Your task to perform on an android device: Check the news Image 0: 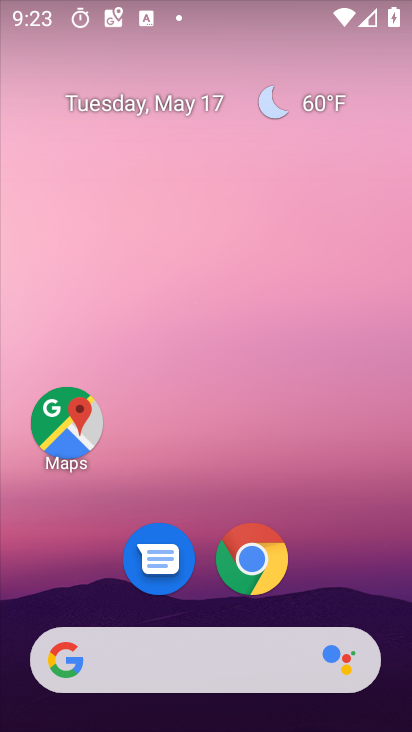
Step 0: drag from (293, 568) to (332, 2)
Your task to perform on an android device: Check the news Image 1: 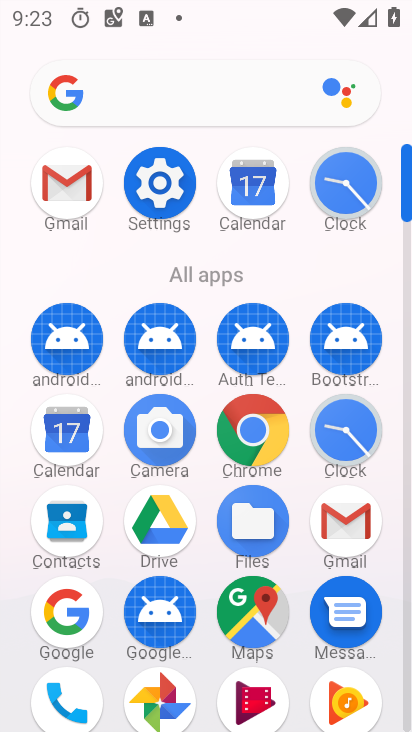
Step 1: click (65, 603)
Your task to perform on an android device: Check the news Image 2: 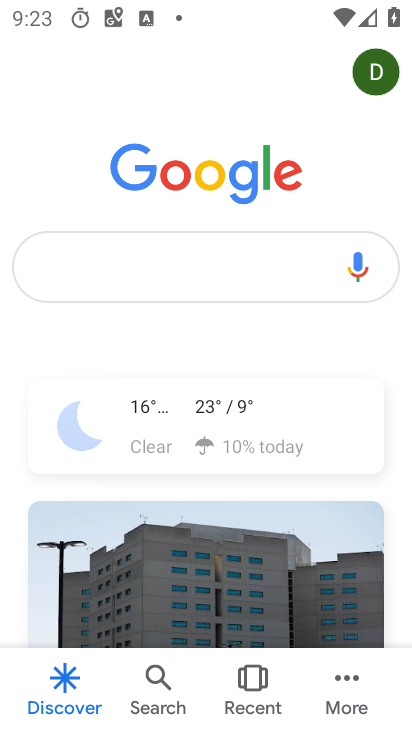
Step 2: click (173, 274)
Your task to perform on an android device: Check the news Image 3: 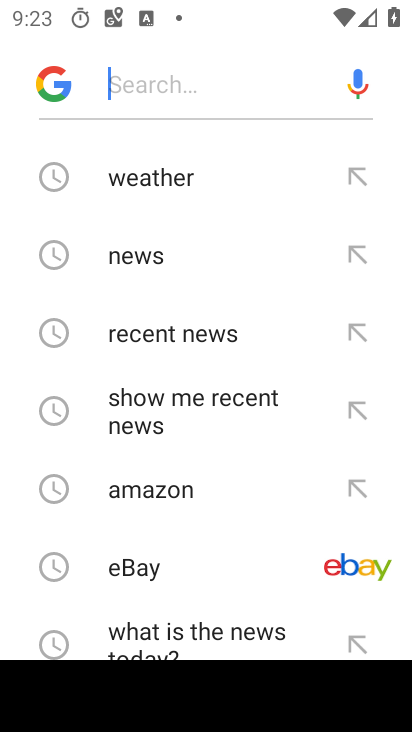
Step 3: click (165, 245)
Your task to perform on an android device: Check the news Image 4: 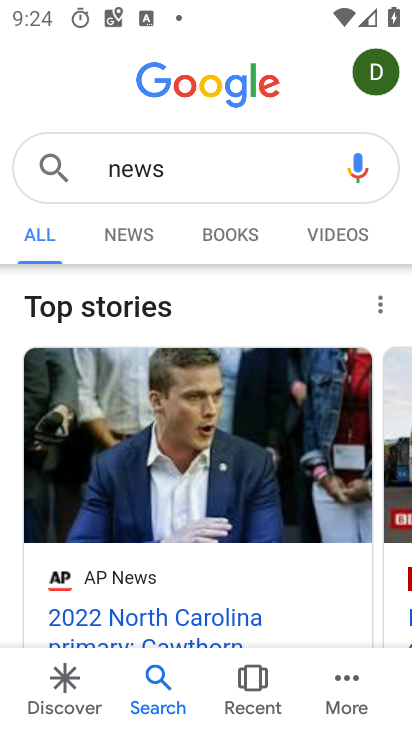
Step 4: task complete